Your task to perform on an android device: Open settings Image 0: 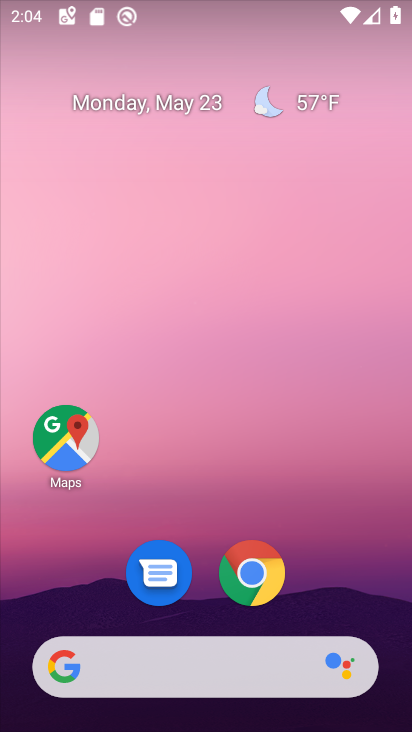
Step 0: drag from (281, 545) to (288, 6)
Your task to perform on an android device: Open settings Image 1: 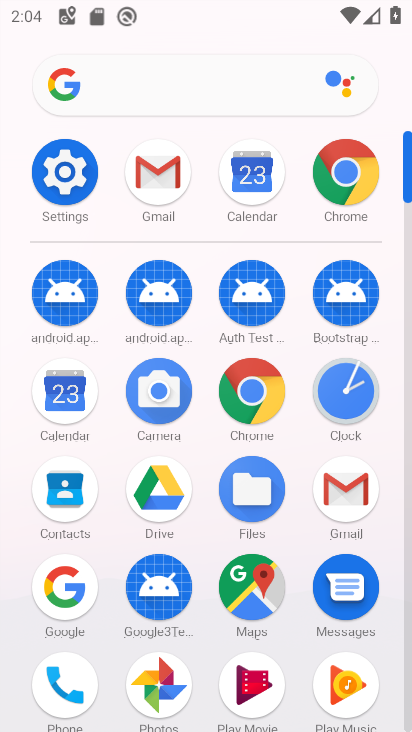
Step 1: click (66, 180)
Your task to perform on an android device: Open settings Image 2: 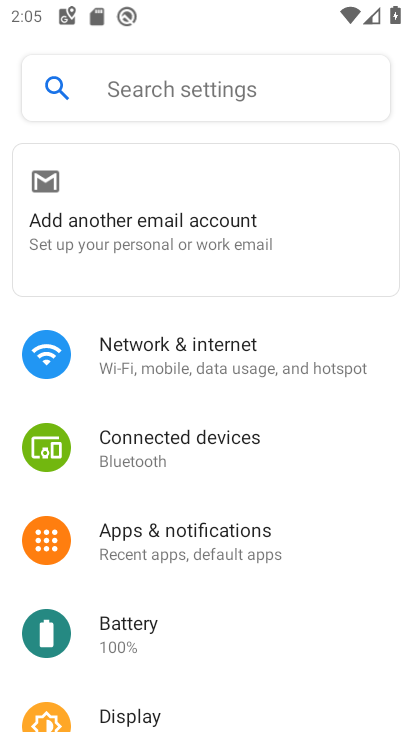
Step 2: task complete